Your task to perform on an android device: Search for sushi restaurants on Maps Image 0: 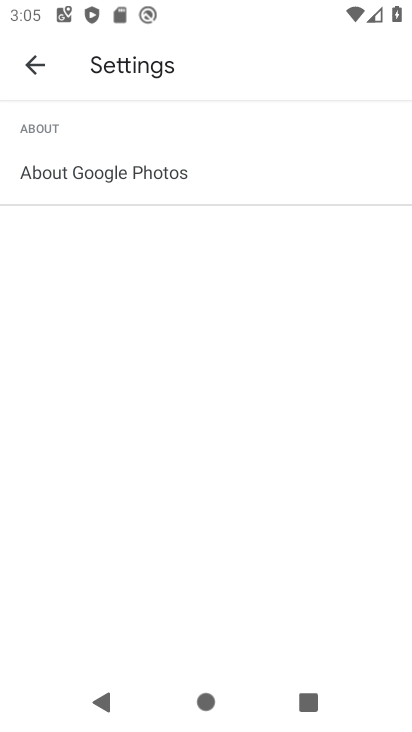
Step 0: press back button
Your task to perform on an android device: Search for sushi restaurants on Maps Image 1: 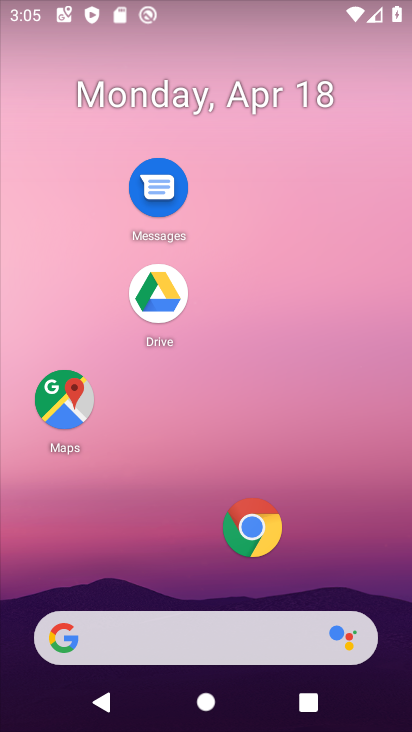
Step 1: click (64, 387)
Your task to perform on an android device: Search for sushi restaurants on Maps Image 2: 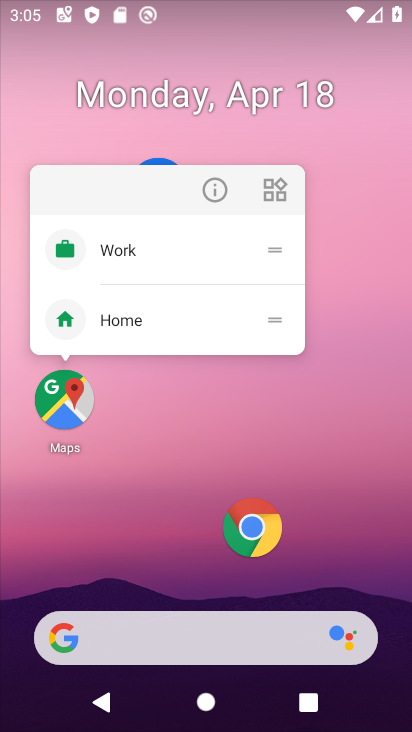
Step 2: click (52, 400)
Your task to perform on an android device: Search for sushi restaurants on Maps Image 3: 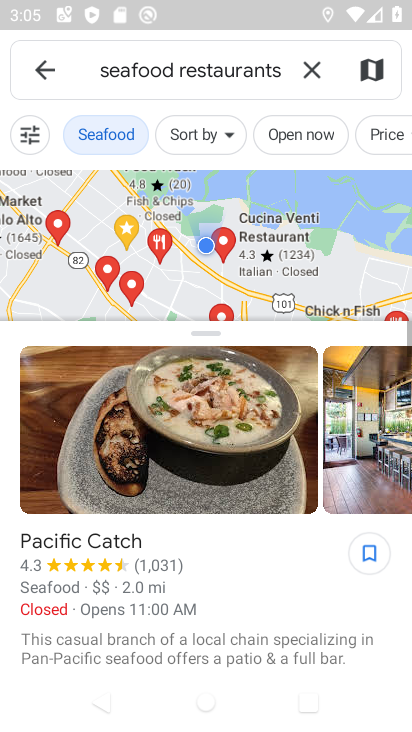
Step 3: click (324, 63)
Your task to perform on an android device: Search for sushi restaurants on Maps Image 4: 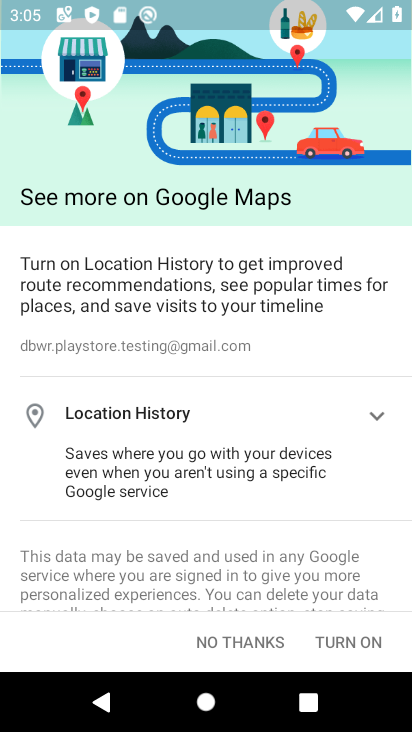
Step 4: click (247, 636)
Your task to perform on an android device: Search for sushi restaurants on Maps Image 5: 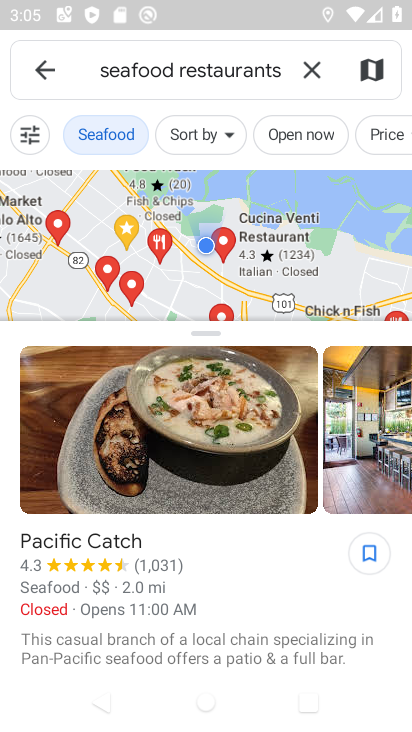
Step 5: click (322, 64)
Your task to perform on an android device: Search for sushi restaurants on Maps Image 6: 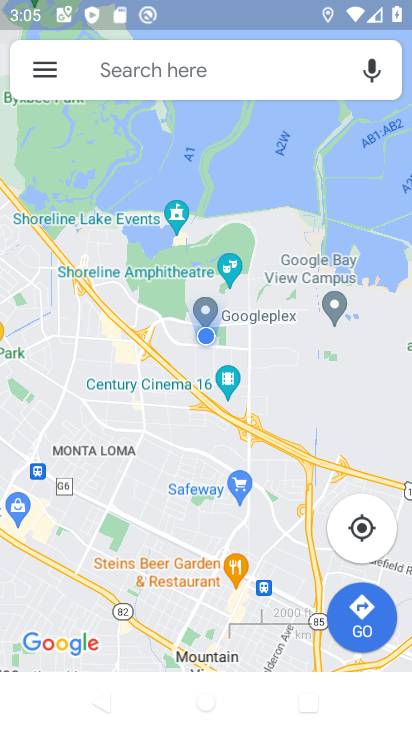
Step 6: click (186, 77)
Your task to perform on an android device: Search for sushi restaurants on Maps Image 7: 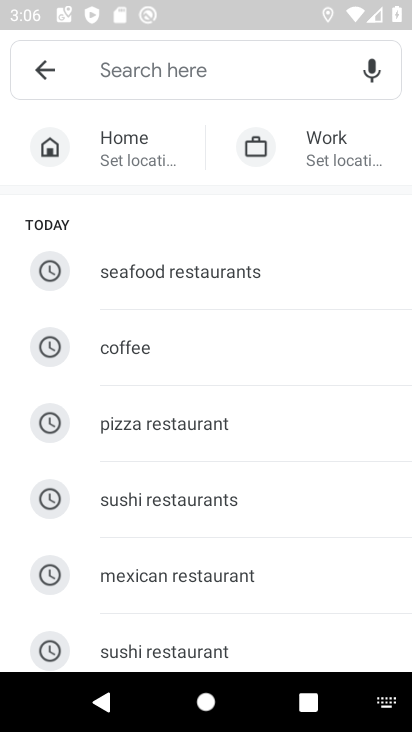
Step 7: type "sushi restaurants"
Your task to perform on an android device: Search for sushi restaurants on Maps Image 8: 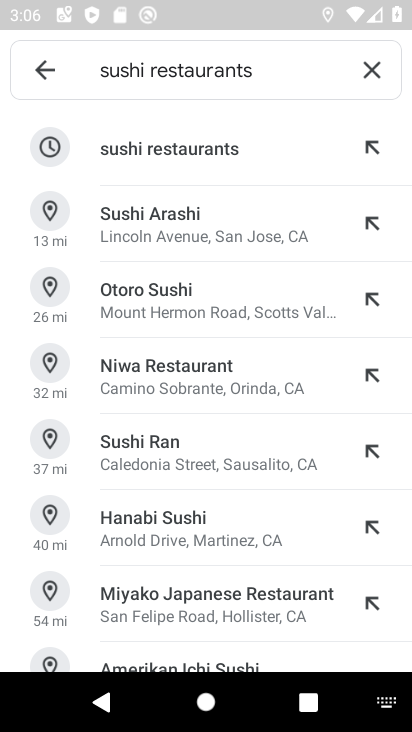
Step 8: click (185, 152)
Your task to perform on an android device: Search for sushi restaurants on Maps Image 9: 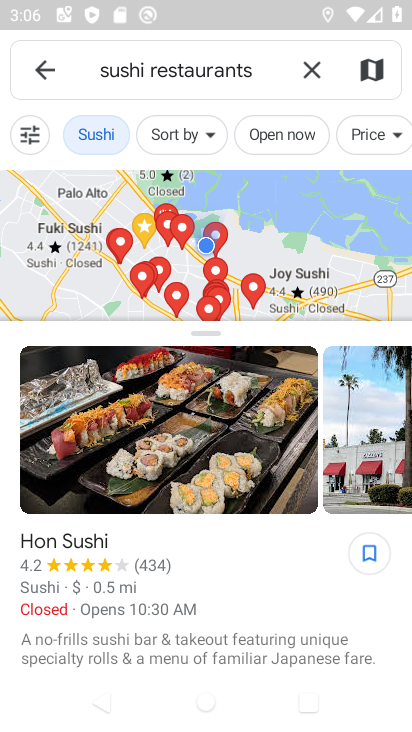
Step 9: task complete